Your task to perform on an android device: Go to ESPN.com Image 0: 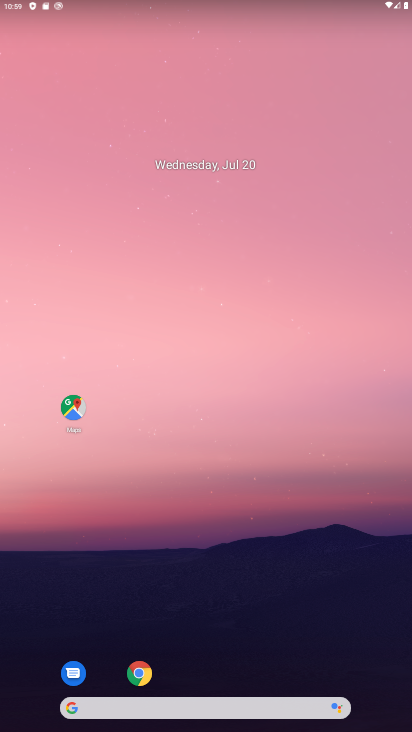
Step 0: click (147, 669)
Your task to perform on an android device: Go to ESPN.com Image 1: 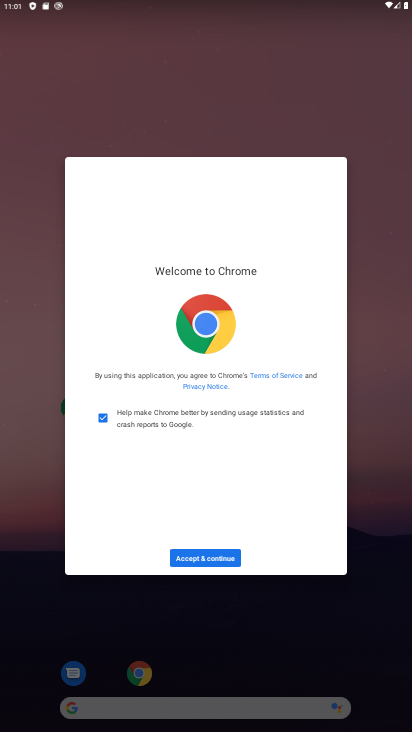
Step 1: click (196, 566)
Your task to perform on an android device: Go to ESPN.com Image 2: 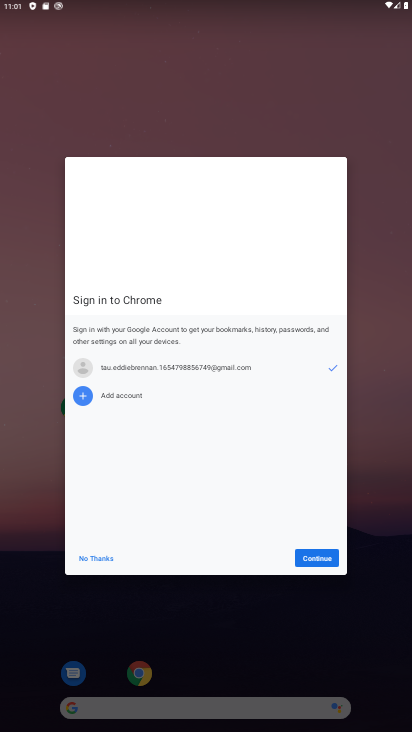
Step 2: click (317, 551)
Your task to perform on an android device: Go to ESPN.com Image 3: 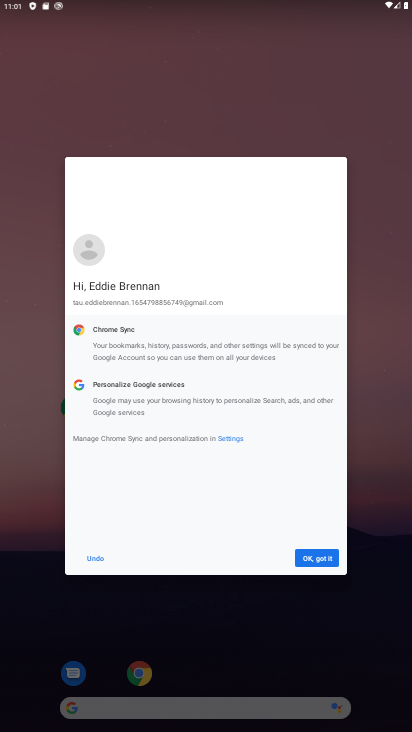
Step 3: click (317, 554)
Your task to perform on an android device: Go to ESPN.com Image 4: 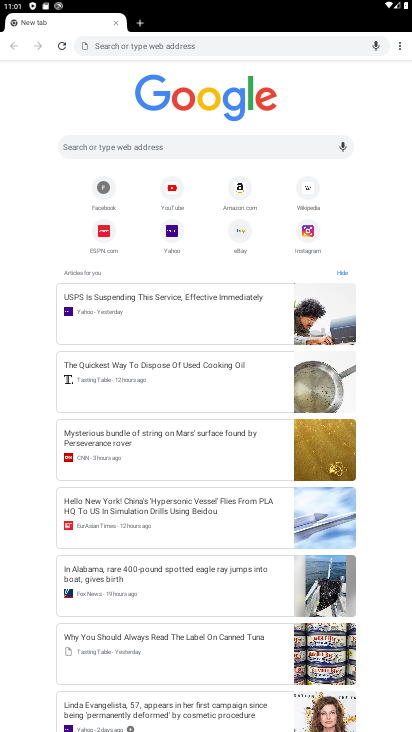
Step 4: click (161, 145)
Your task to perform on an android device: Go to ESPN.com Image 5: 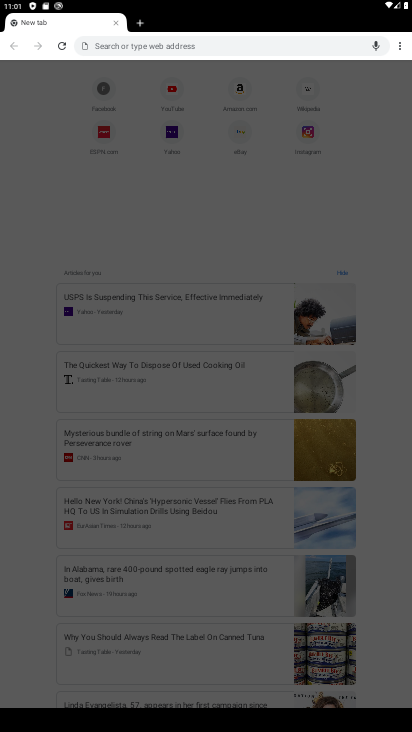
Step 5: type "ESPN.com"
Your task to perform on an android device: Go to ESPN.com Image 6: 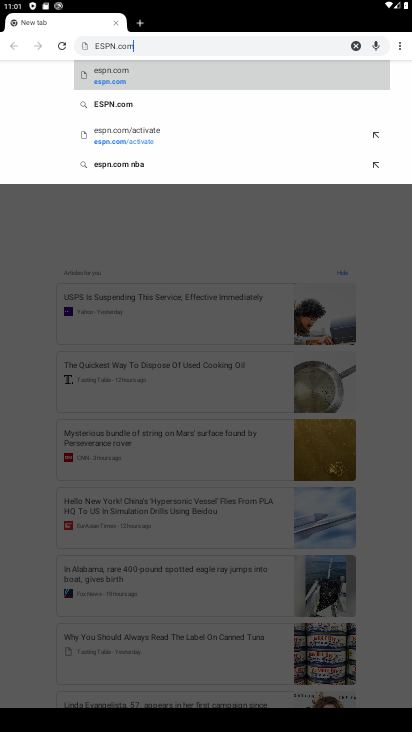
Step 6: type ""
Your task to perform on an android device: Go to ESPN.com Image 7: 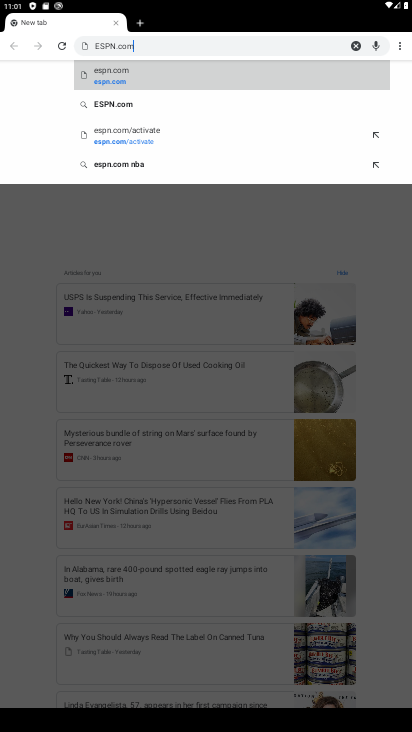
Step 7: click (157, 73)
Your task to perform on an android device: Go to ESPN.com Image 8: 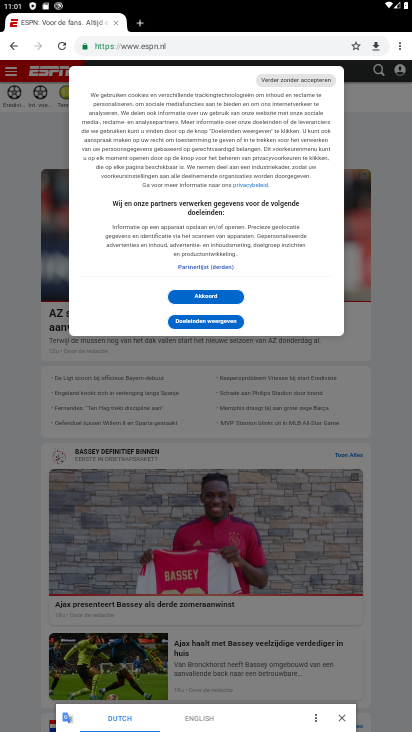
Step 8: click (153, 43)
Your task to perform on an android device: Go to ESPN.com Image 9: 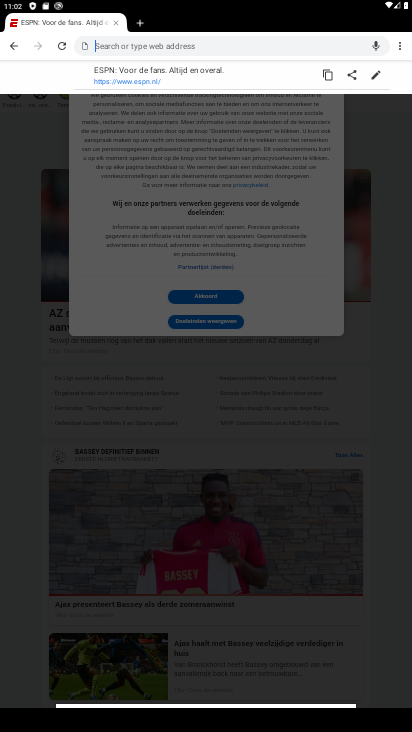
Step 9: click (180, 45)
Your task to perform on an android device: Go to ESPN.com Image 10: 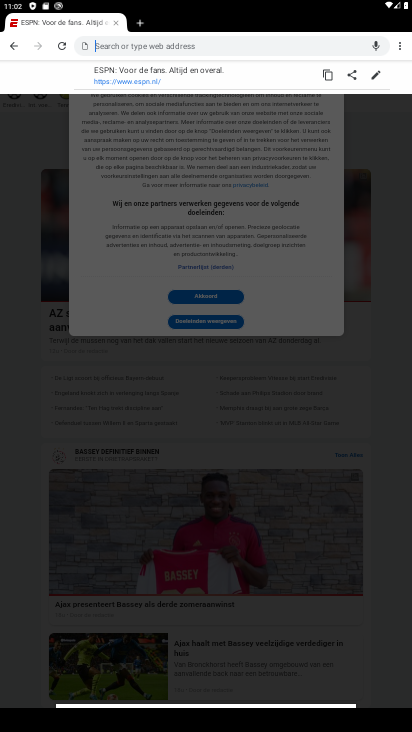
Step 10: click (48, 327)
Your task to perform on an android device: Go to ESPN.com Image 11: 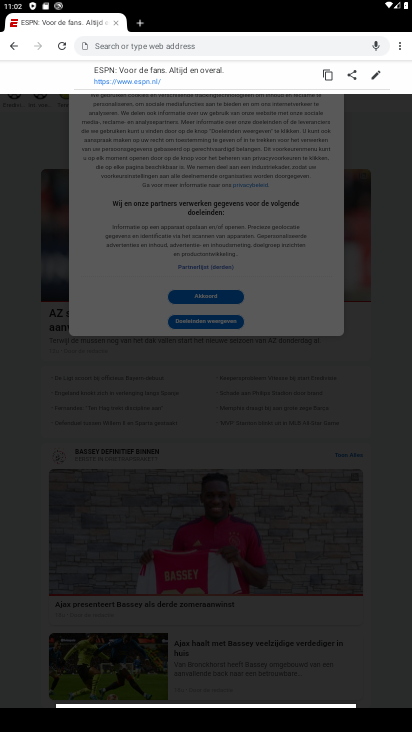
Step 11: click (48, 327)
Your task to perform on an android device: Go to ESPN.com Image 12: 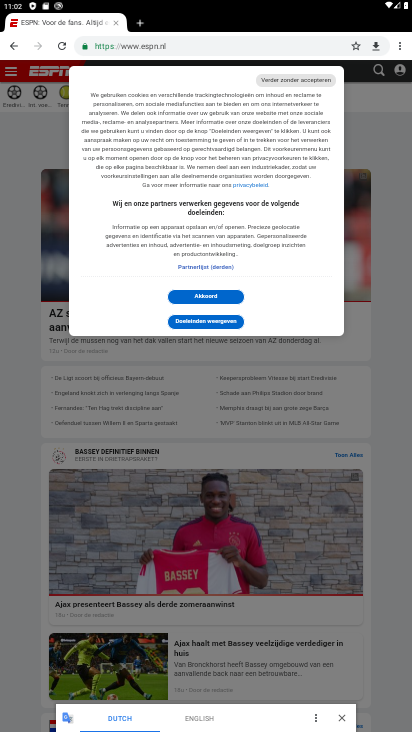
Step 12: task complete